Your task to perform on an android device: star an email in the gmail app Image 0: 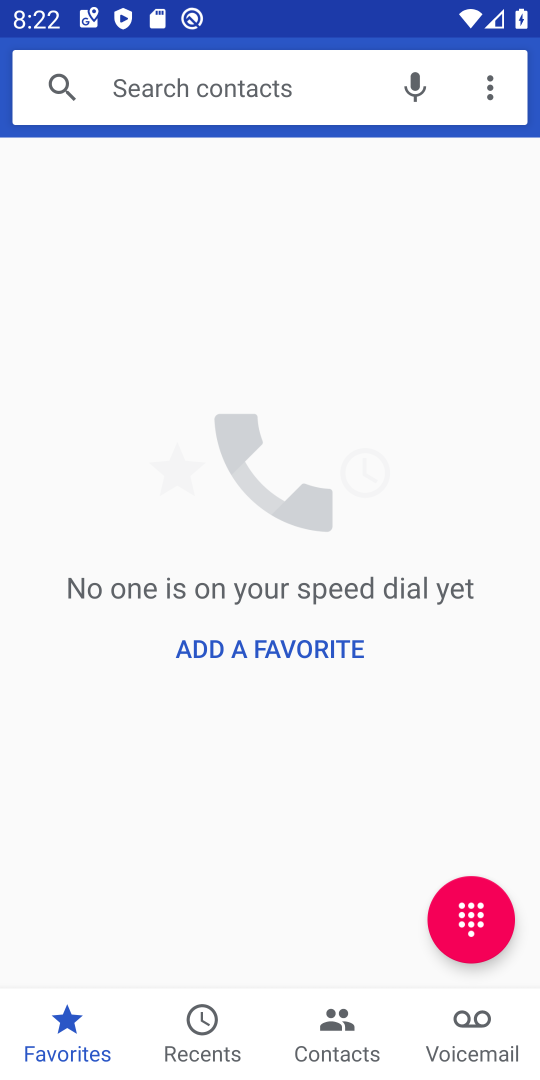
Step 0: press home button
Your task to perform on an android device: star an email in the gmail app Image 1: 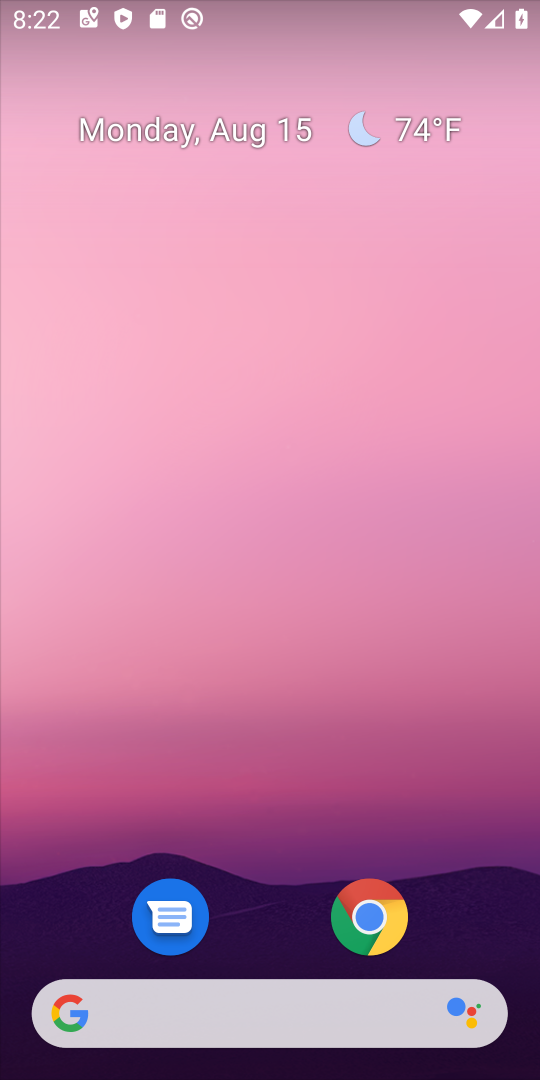
Step 1: drag from (273, 800) to (352, 10)
Your task to perform on an android device: star an email in the gmail app Image 2: 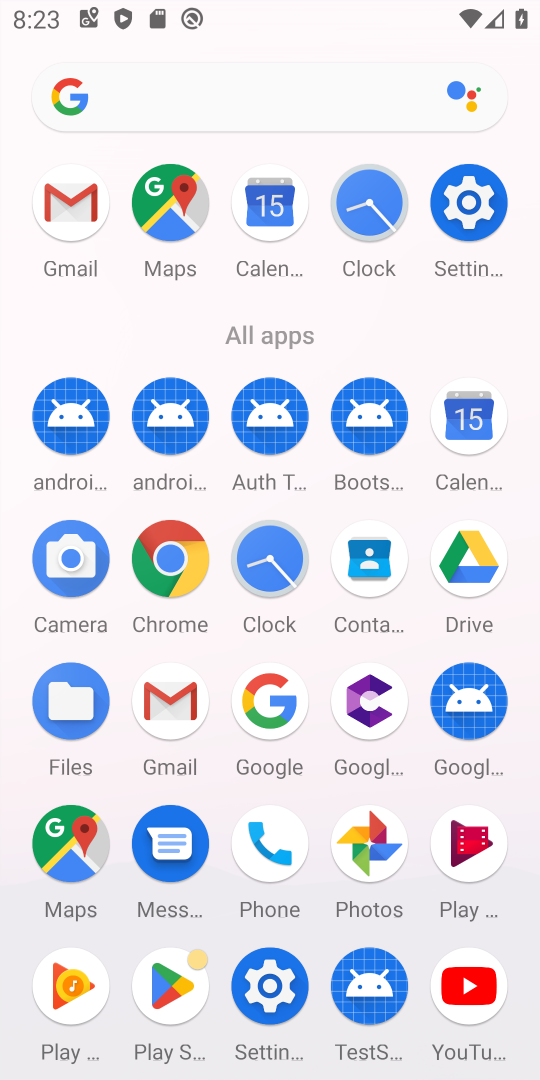
Step 2: click (71, 194)
Your task to perform on an android device: star an email in the gmail app Image 3: 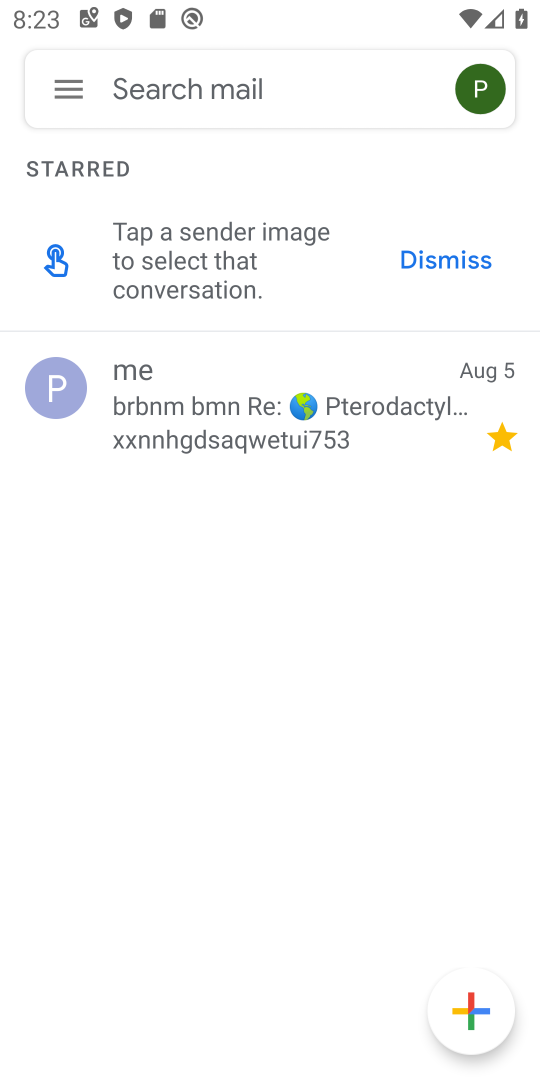
Step 3: click (73, 84)
Your task to perform on an android device: star an email in the gmail app Image 4: 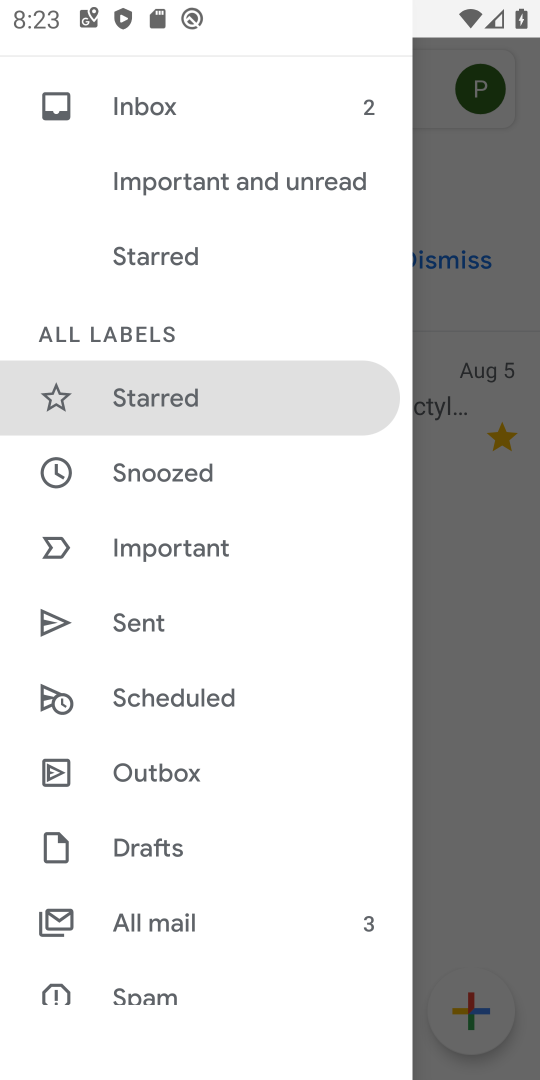
Step 4: click (160, 911)
Your task to perform on an android device: star an email in the gmail app Image 5: 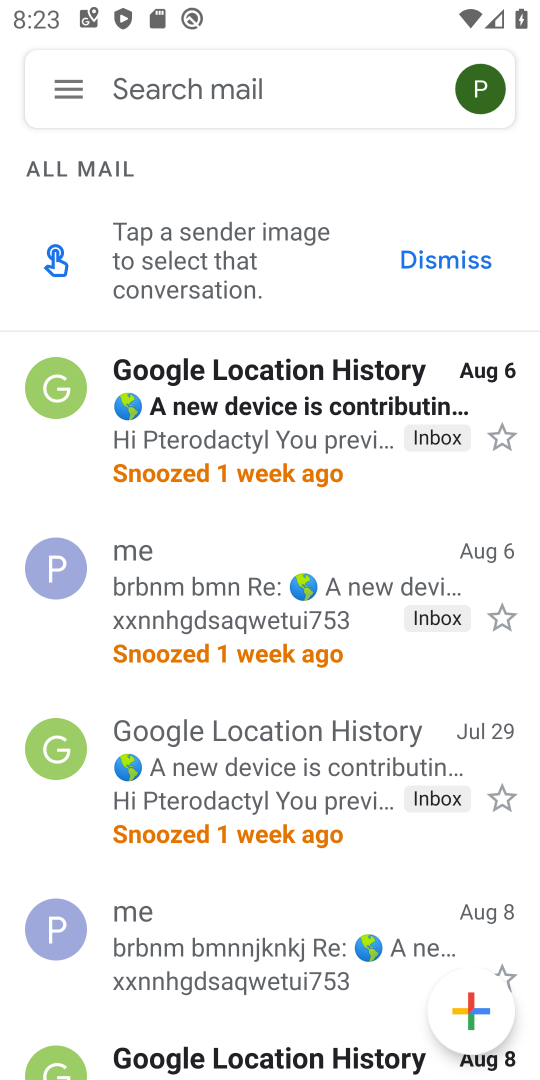
Step 5: click (505, 433)
Your task to perform on an android device: star an email in the gmail app Image 6: 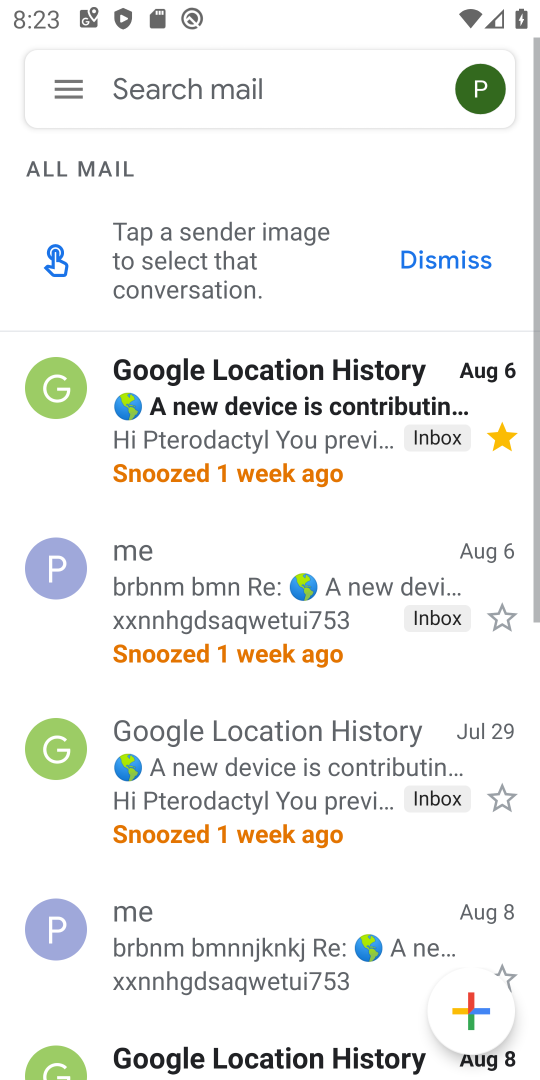
Step 6: task complete